Your task to perform on an android device: turn on notifications settings in the gmail app Image 0: 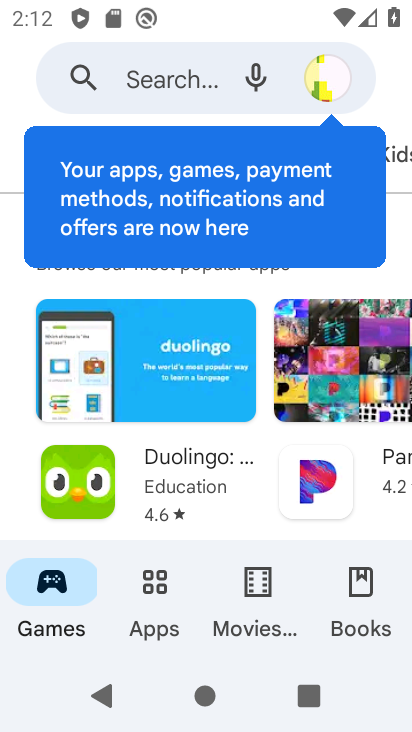
Step 0: press home button
Your task to perform on an android device: turn on notifications settings in the gmail app Image 1: 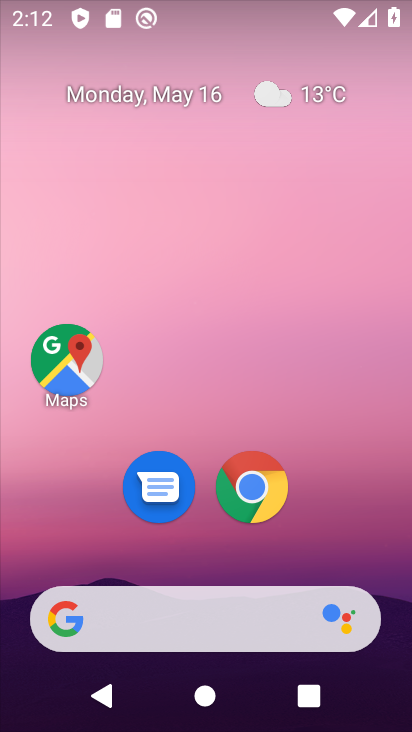
Step 1: drag from (320, 512) to (129, 51)
Your task to perform on an android device: turn on notifications settings in the gmail app Image 2: 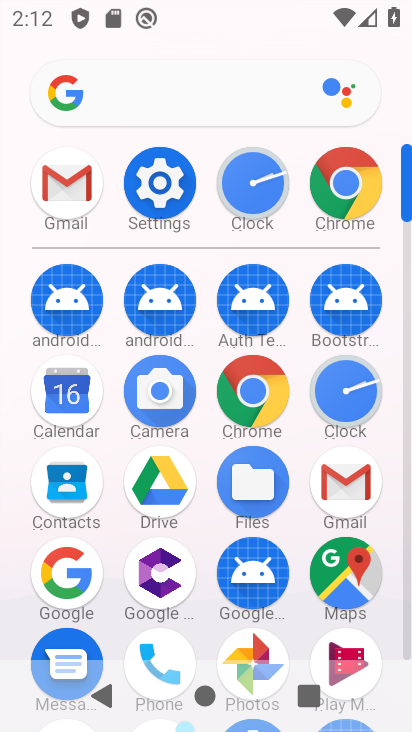
Step 2: click (334, 486)
Your task to perform on an android device: turn on notifications settings in the gmail app Image 3: 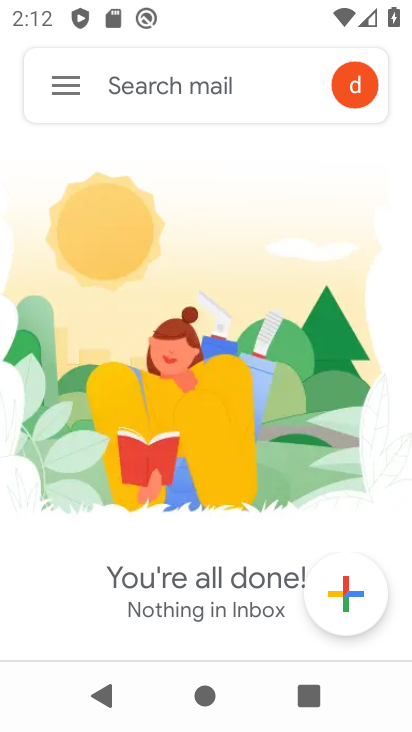
Step 3: click (62, 81)
Your task to perform on an android device: turn on notifications settings in the gmail app Image 4: 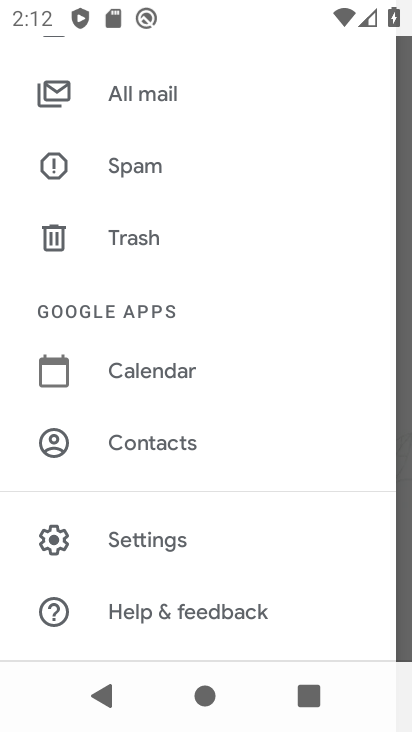
Step 4: click (143, 539)
Your task to perform on an android device: turn on notifications settings in the gmail app Image 5: 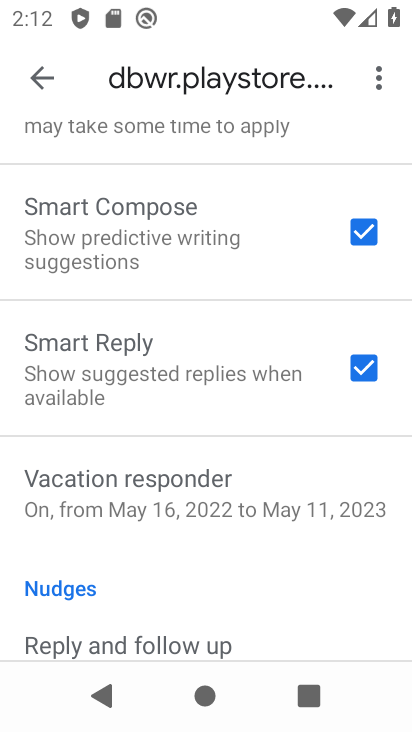
Step 5: drag from (187, 280) to (191, 559)
Your task to perform on an android device: turn on notifications settings in the gmail app Image 6: 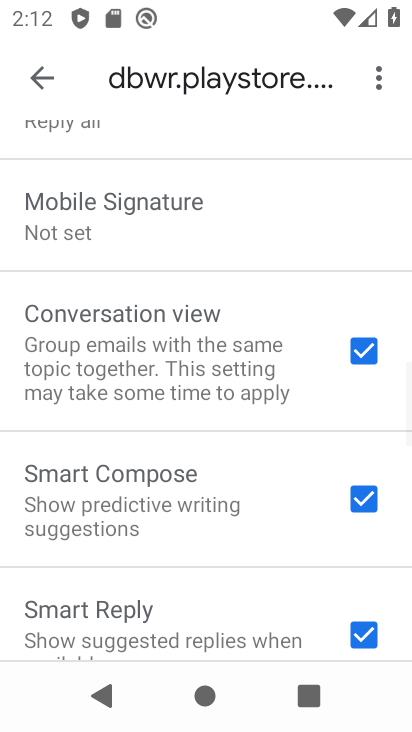
Step 6: drag from (123, 217) to (106, 569)
Your task to perform on an android device: turn on notifications settings in the gmail app Image 7: 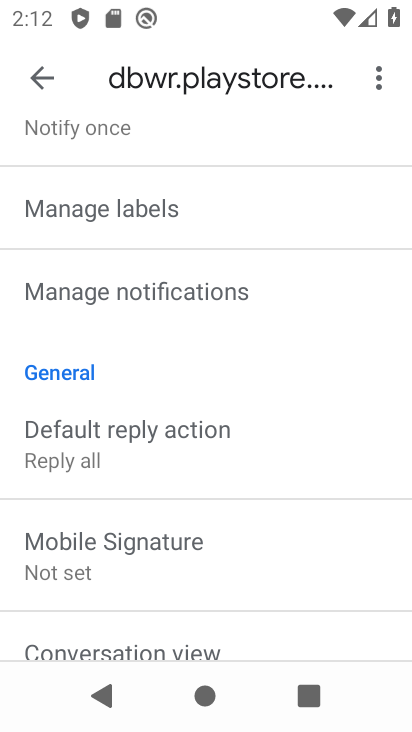
Step 7: drag from (218, 197) to (201, 535)
Your task to perform on an android device: turn on notifications settings in the gmail app Image 8: 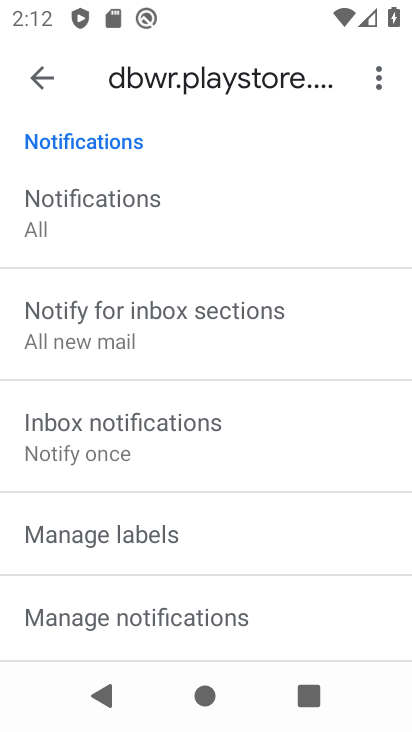
Step 8: drag from (198, 196) to (182, 559)
Your task to perform on an android device: turn on notifications settings in the gmail app Image 9: 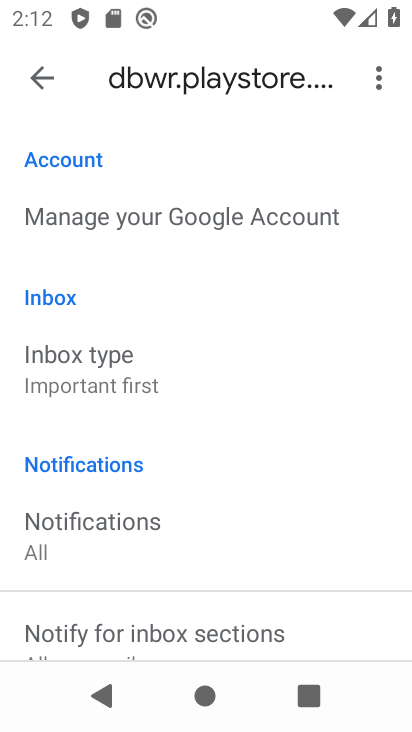
Step 9: drag from (154, 559) to (135, 145)
Your task to perform on an android device: turn on notifications settings in the gmail app Image 10: 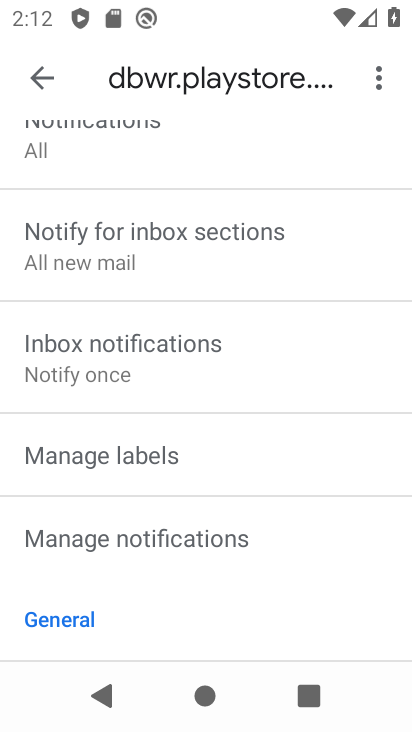
Step 10: click (74, 546)
Your task to perform on an android device: turn on notifications settings in the gmail app Image 11: 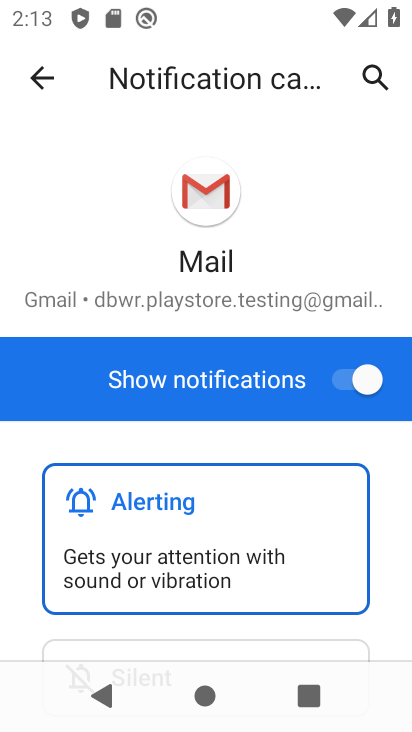
Step 11: task complete